Your task to perform on an android device: Add "duracell triple a" to the cart on costco, then select checkout. Image 0: 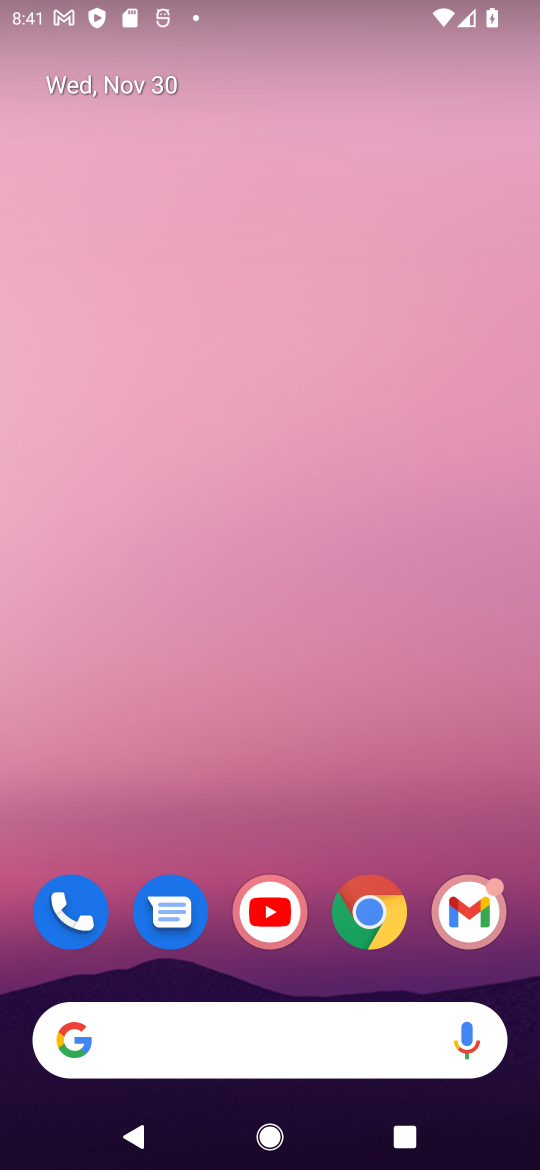
Step 0: click (232, 1051)
Your task to perform on an android device: Add "duracell triple a" to the cart on costco, then select checkout. Image 1: 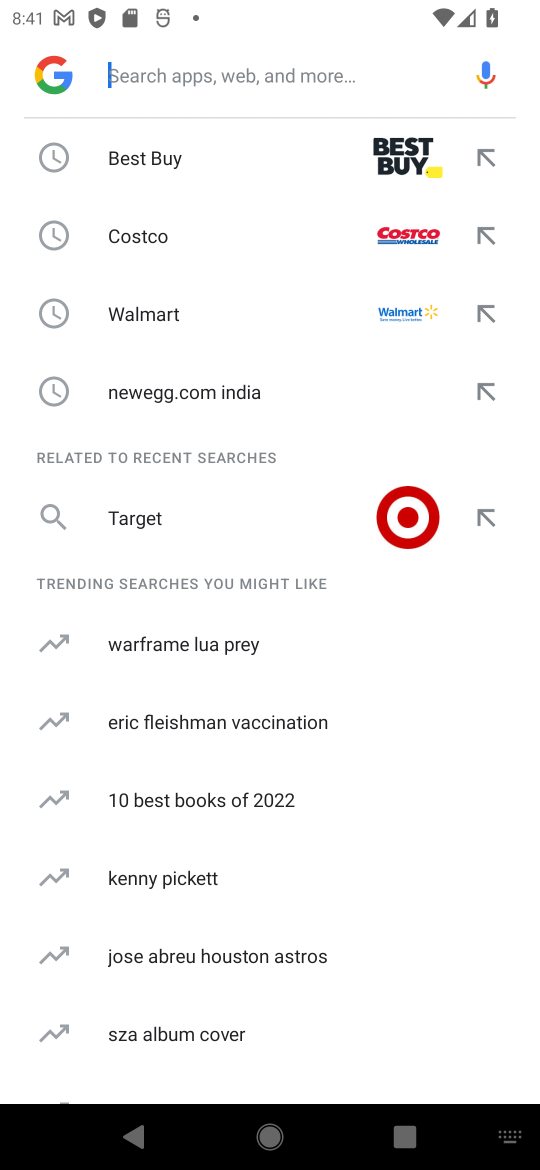
Step 1: click (232, 242)
Your task to perform on an android device: Add "duracell triple a" to the cart on costco, then select checkout. Image 2: 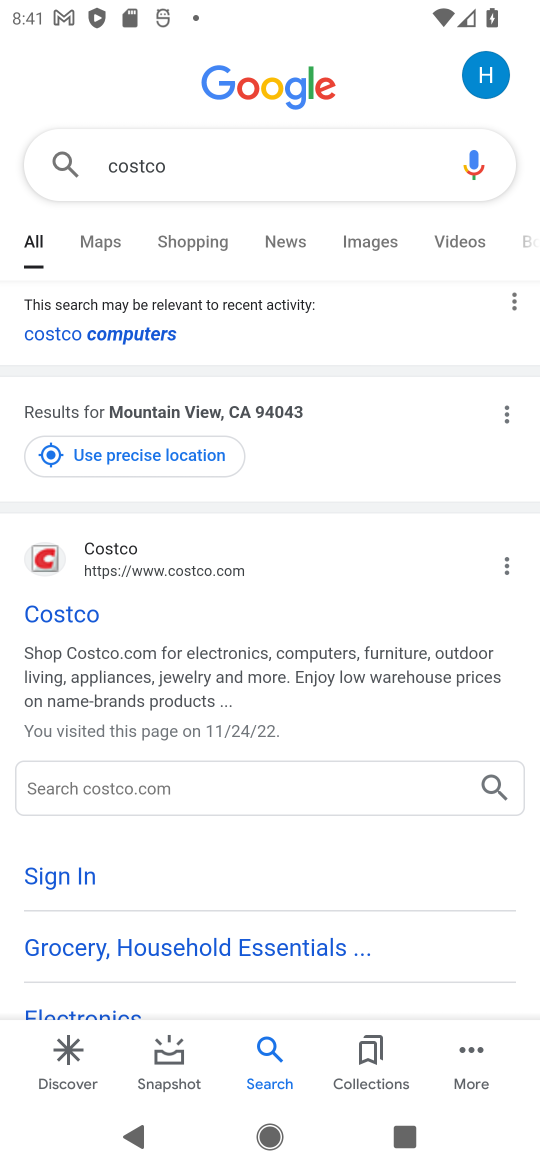
Step 2: click (59, 614)
Your task to perform on an android device: Add "duracell triple a" to the cart on costco, then select checkout. Image 3: 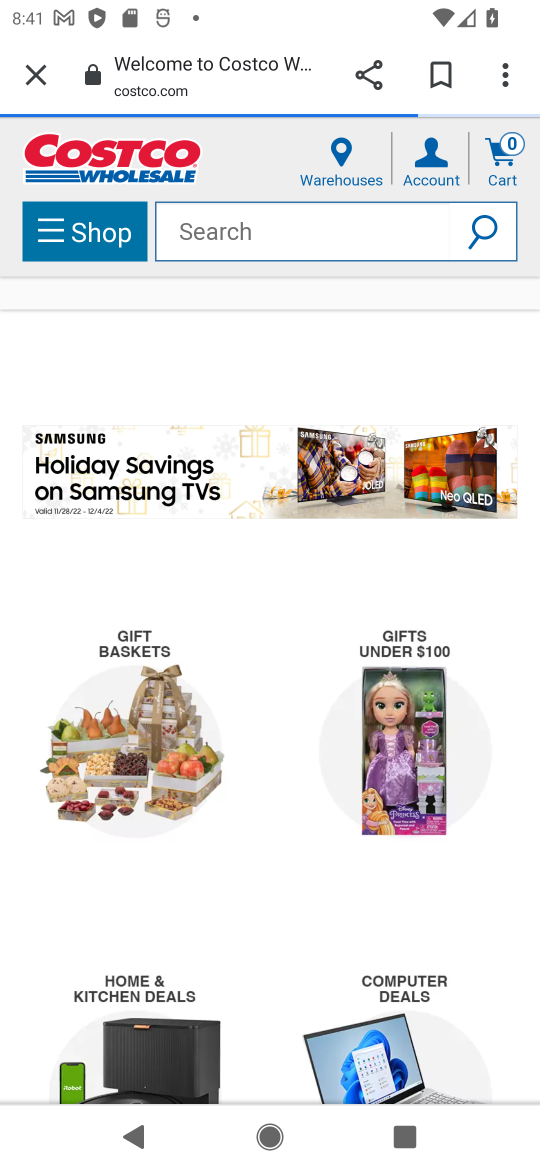
Step 3: click (344, 231)
Your task to perform on an android device: Add "duracell triple a" to the cart on costco, then select checkout. Image 4: 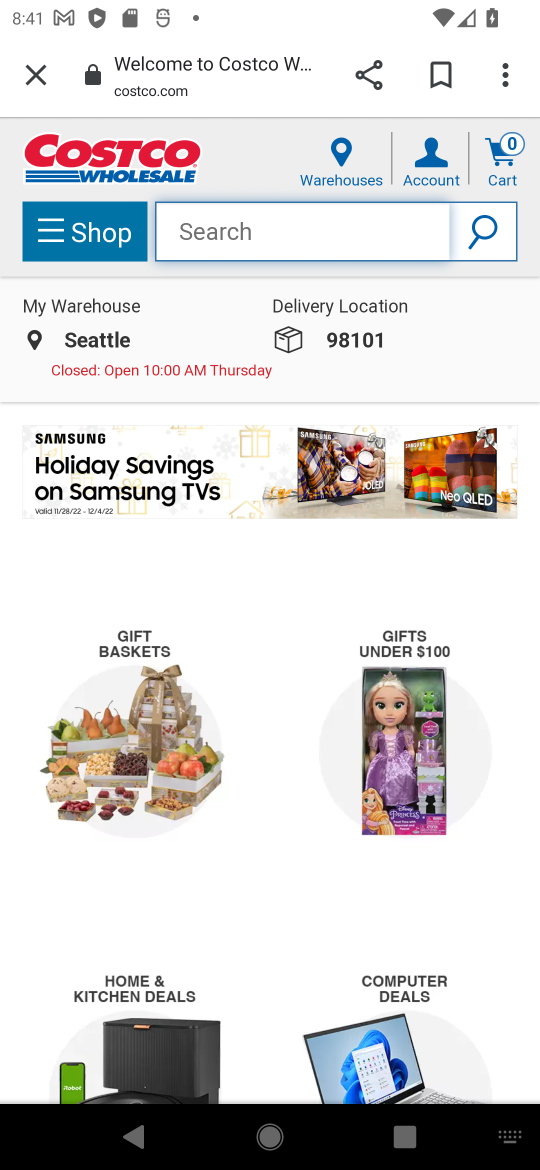
Step 4: type "duracell triple a"
Your task to perform on an android device: Add "duracell triple a" to the cart on costco, then select checkout. Image 5: 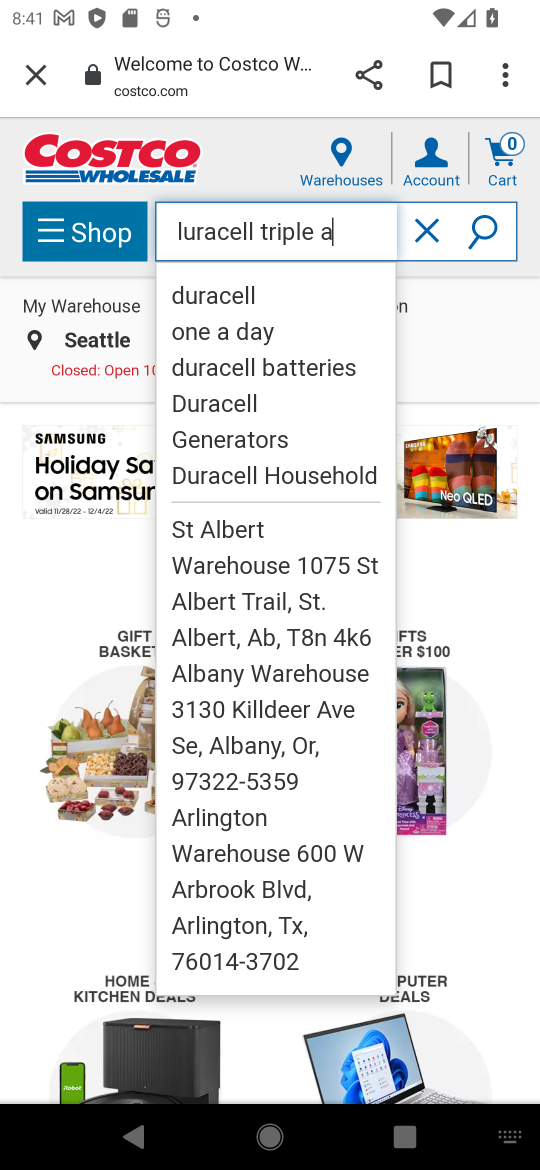
Step 5: click (481, 236)
Your task to perform on an android device: Add "duracell triple a" to the cart on costco, then select checkout. Image 6: 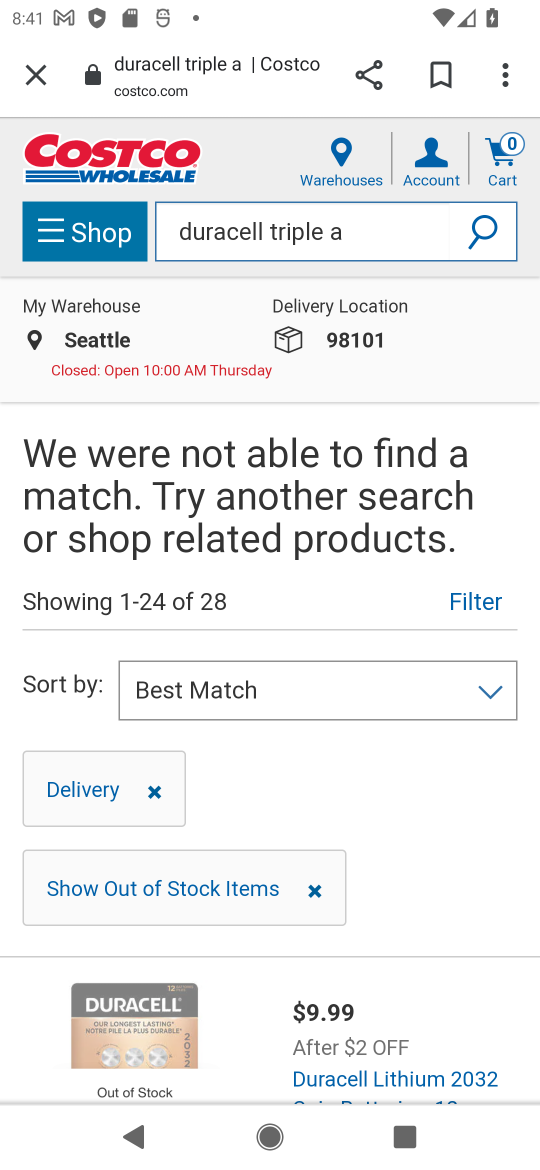
Step 6: drag from (440, 842) to (434, 438)
Your task to perform on an android device: Add "duracell triple a" to the cart on costco, then select checkout. Image 7: 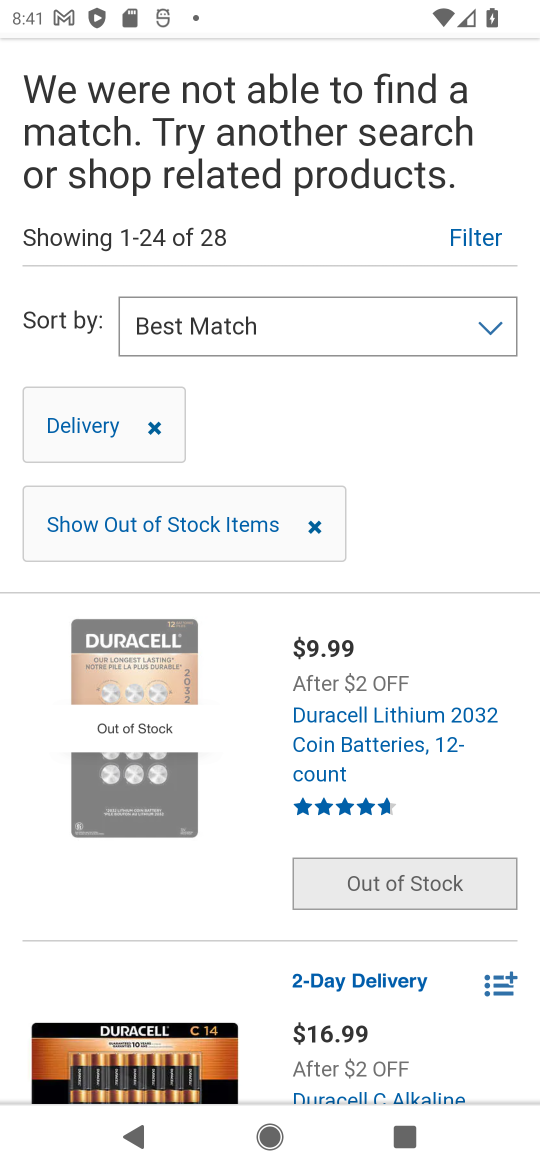
Step 7: drag from (374, 912) to (374, 689)
Your task to perform on an android device: Add "duracell triple a" to the cart on costco, then select checkout. Image 8: 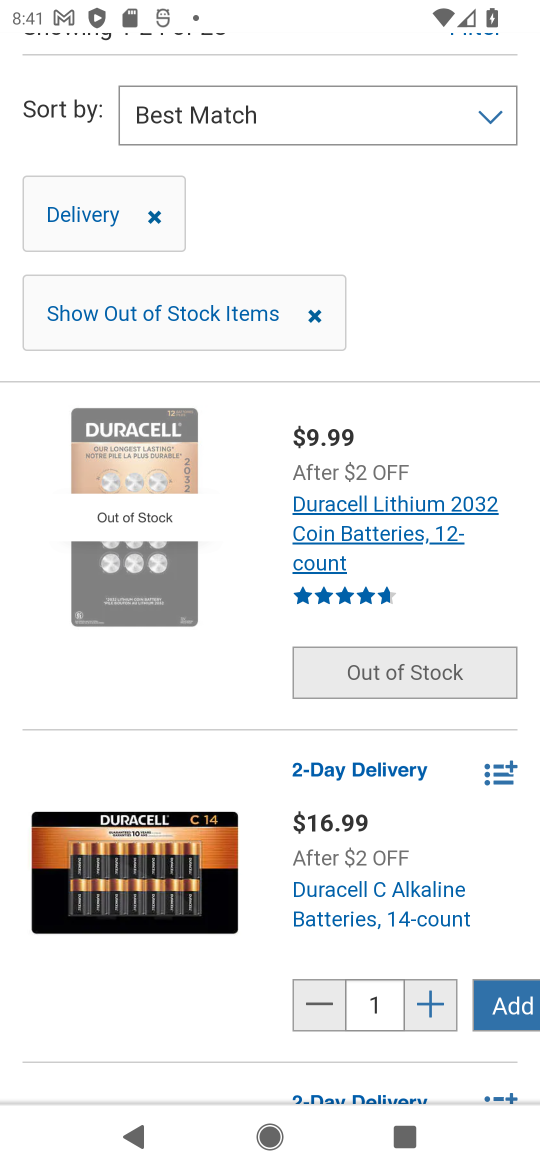
Step 8: click (502, 995)
Your task to perform on an android device: Add "duracell triple a" to the cart on costco, then select checkout. Image 9: 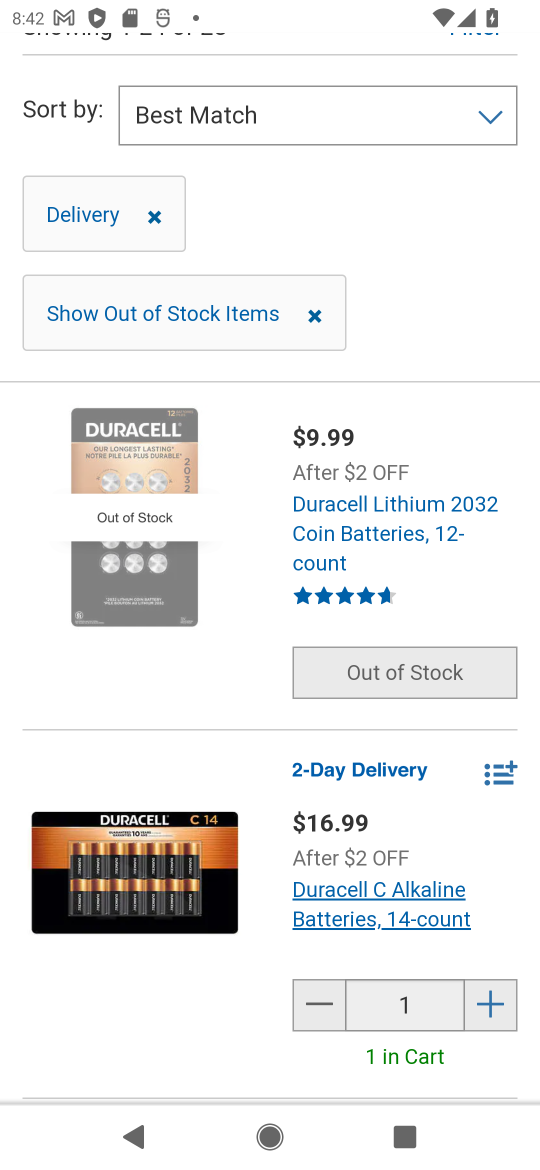
Step 9: drag from (453, 708) to (414, 913)
Your task to perform on an android device: Add "duracell triple a" to the cart on costco, then select checkout. Image 10: 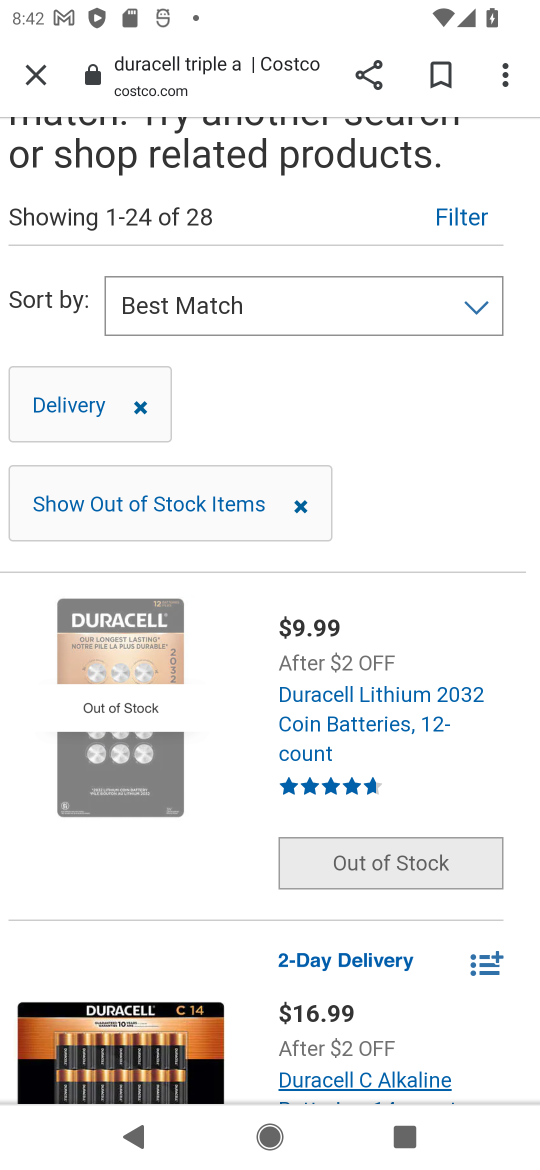
Step 10: drag from (404, 501) to (432, 805)
Your task to perform on an android device: Add "duracell triple a" to the cart on costco, then select checkout. Image 11: 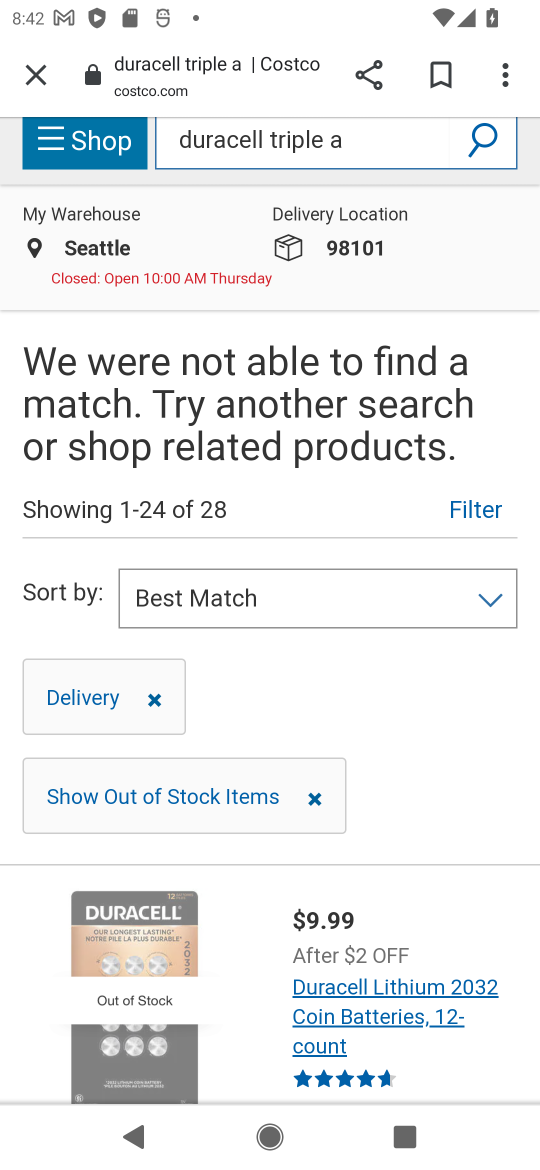
Step 11: drag from (449, 399) to (444, 560)
Your task to perform on an android device: Add "duracell triple a" to the cart on costco, then select checkout. Image 12: 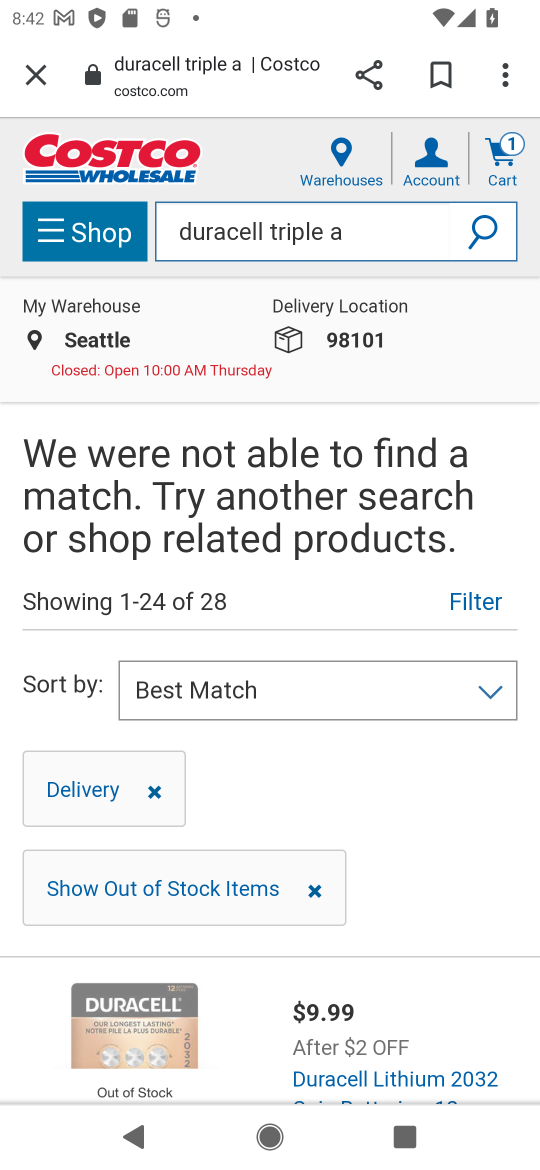
Step 12: click (505, 167)
Your task to perform on an android device: Add "duracell triple a" to the cart on costco, then select checkout. Image 13: 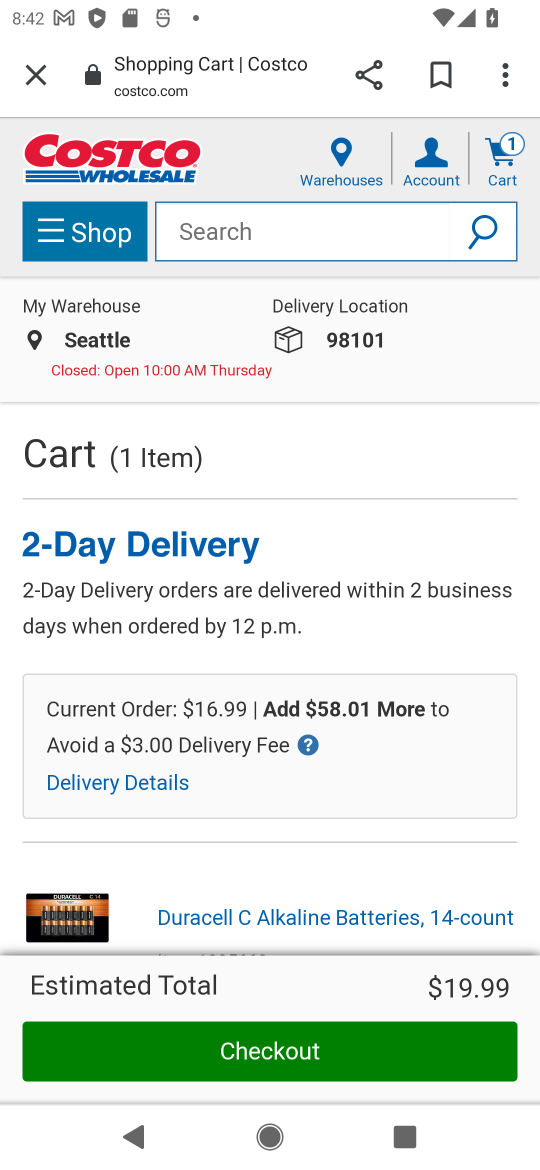
Step 13: click (251, 1047)
Your task to perform on an android device: Add "duracell triple a" to the cart on costco, then select checkout. Image 14: 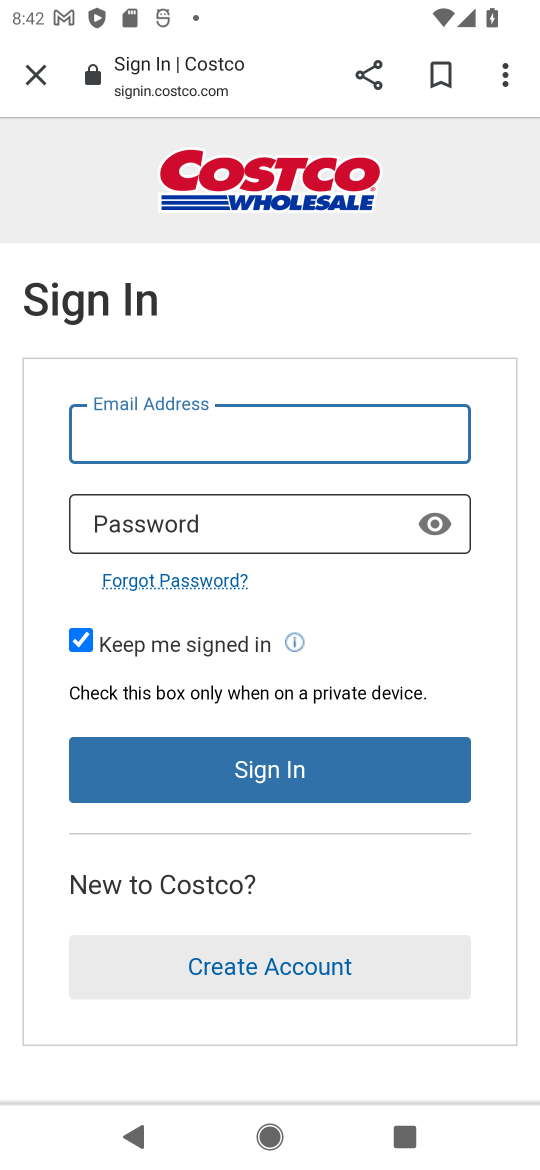
Step 14: task complete